Your task to perform on an android device: Go to settings Image 0: 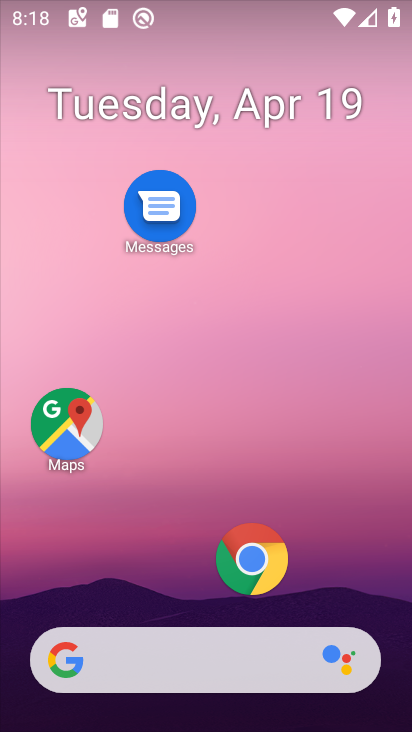
Step 0: drag from (168, 661) to (175, 173)
Your task to perform on an android device: Go to settings Image 1: 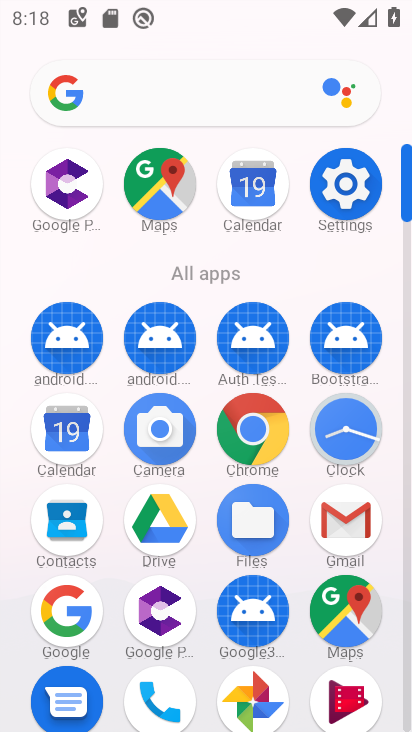
Step 1: click (346, 182)
Your task to perform on an android device: Go to settings Image 2: 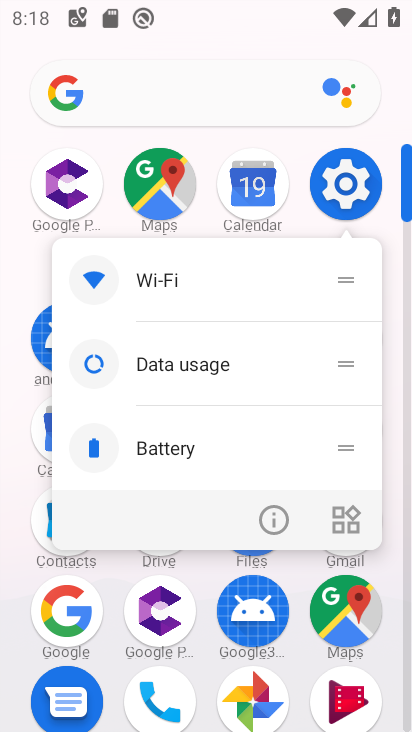
Step 2: click (346, 182)
Your task to perform on an android device: Go to settings Image 3: 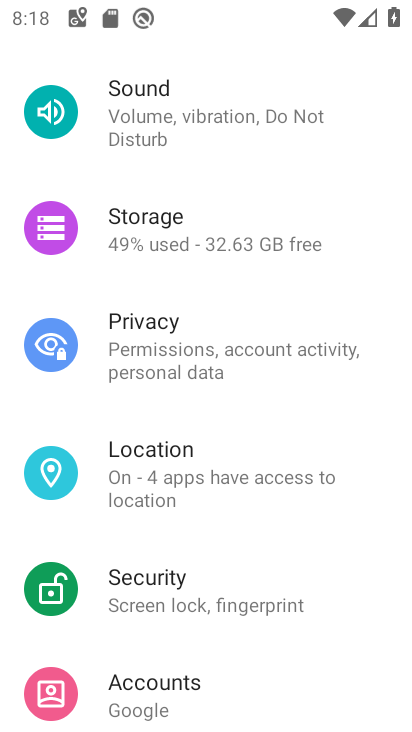
Step 3: task complete